Your task to perform on an android device: Open Google Maps and go to "Timeline" Image 0: 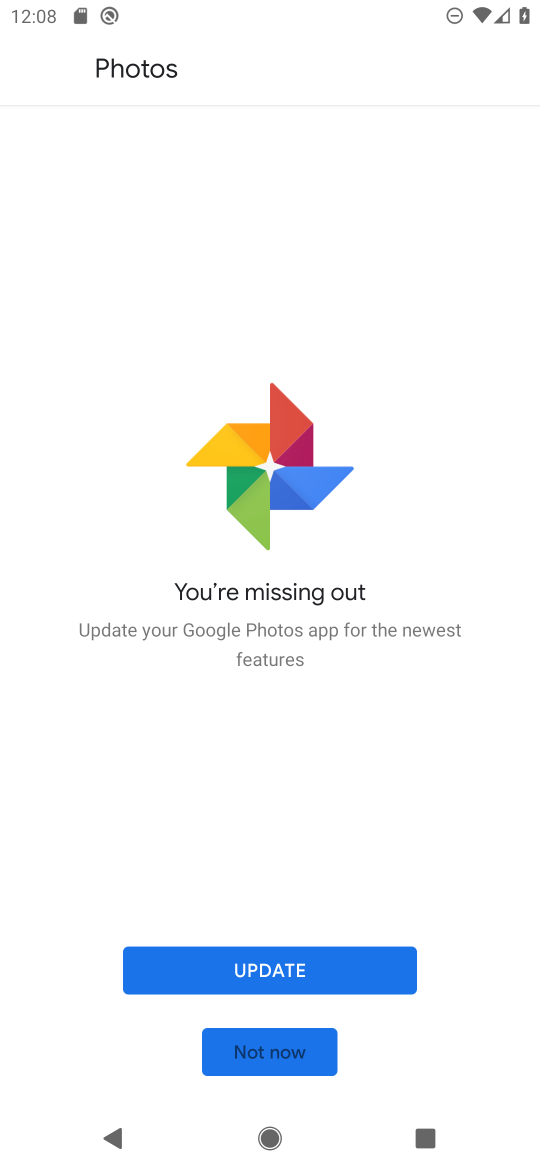
Step 0: press home button
Your task to perform on an android device: Open Google Maps and go to "Timeline" Image 1: 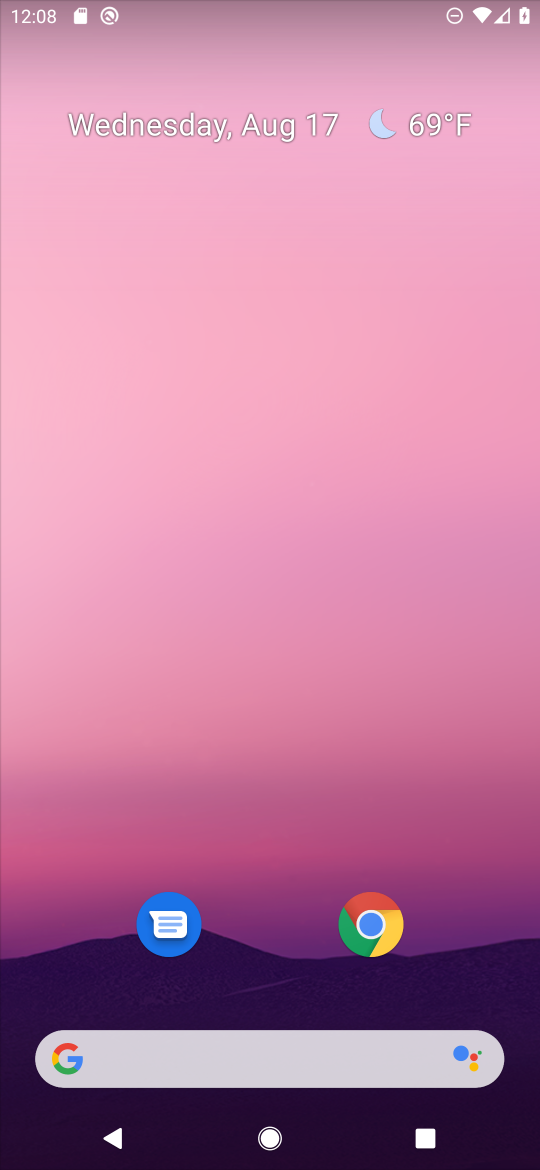
Step 1: drag from (246, 974) to (269, 282)
Your task to perform on an android device: Open Google Maps and go to "Timeline" Image 2: 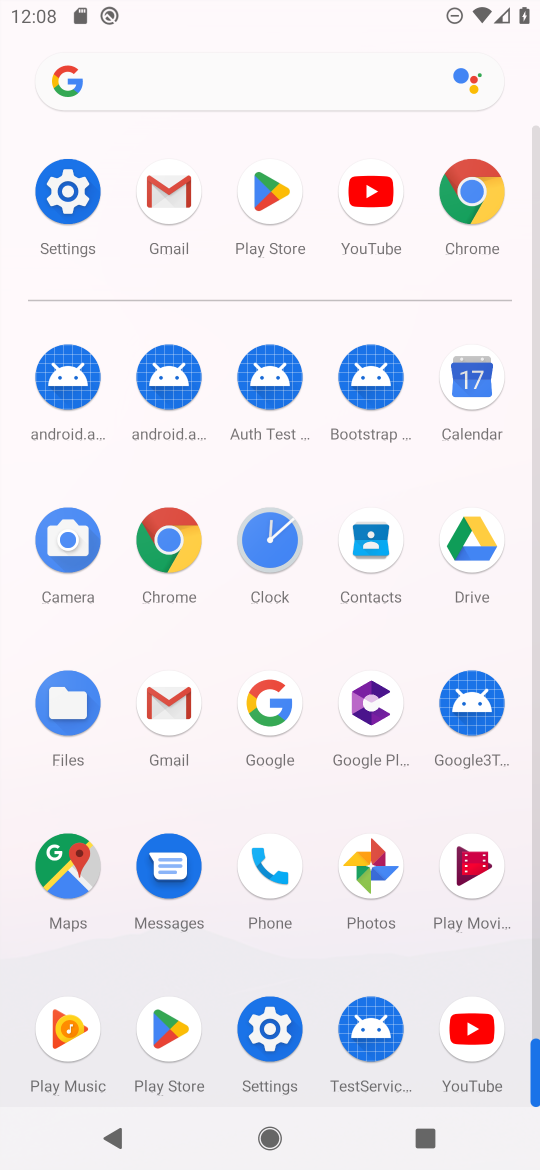
Step 2: click (48, 854)
Your task to perform on an android device: Open Google Maps and go to "Timeline" Image 3: 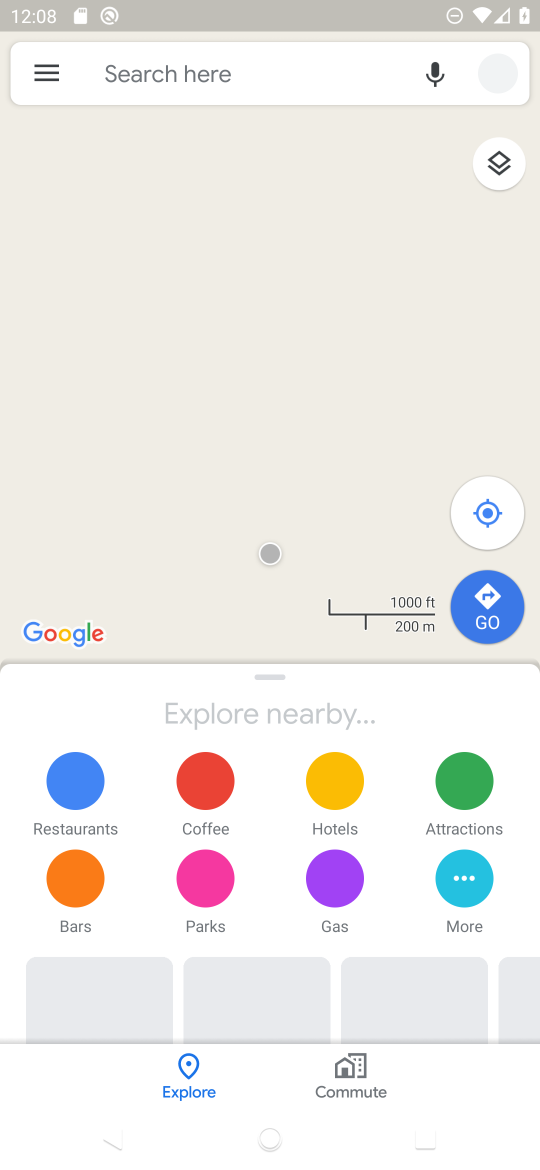
Step 3: click (48, 79)
Your task to perform on an android device: Open Google Maps and go to "Timeline" Image 4: 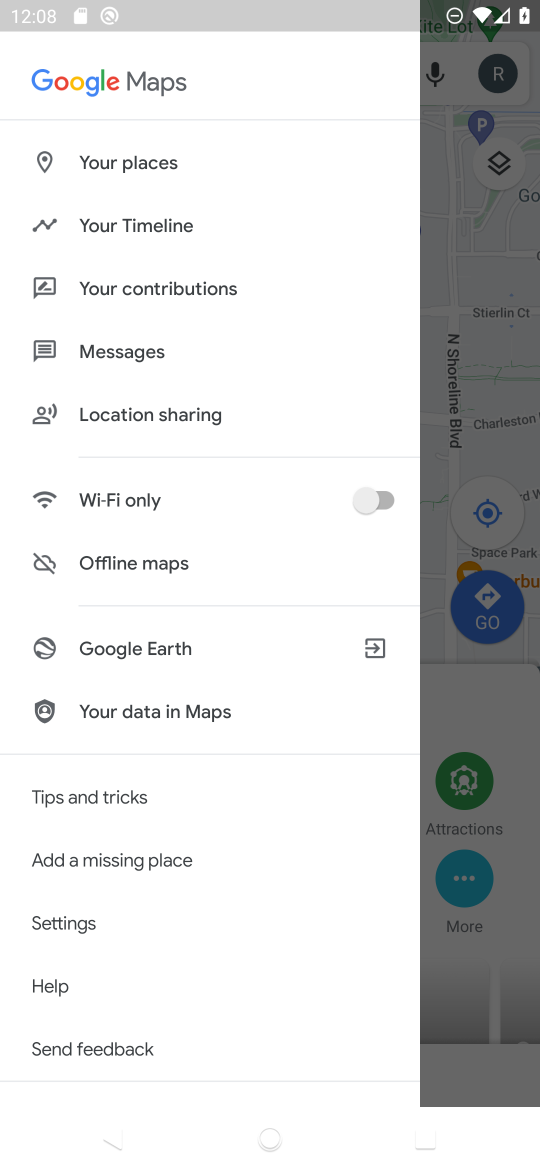
Step 4: click (217, 213)
Your task to perform on an android device: Open Google Maps and go to "Timeline" Image 5: 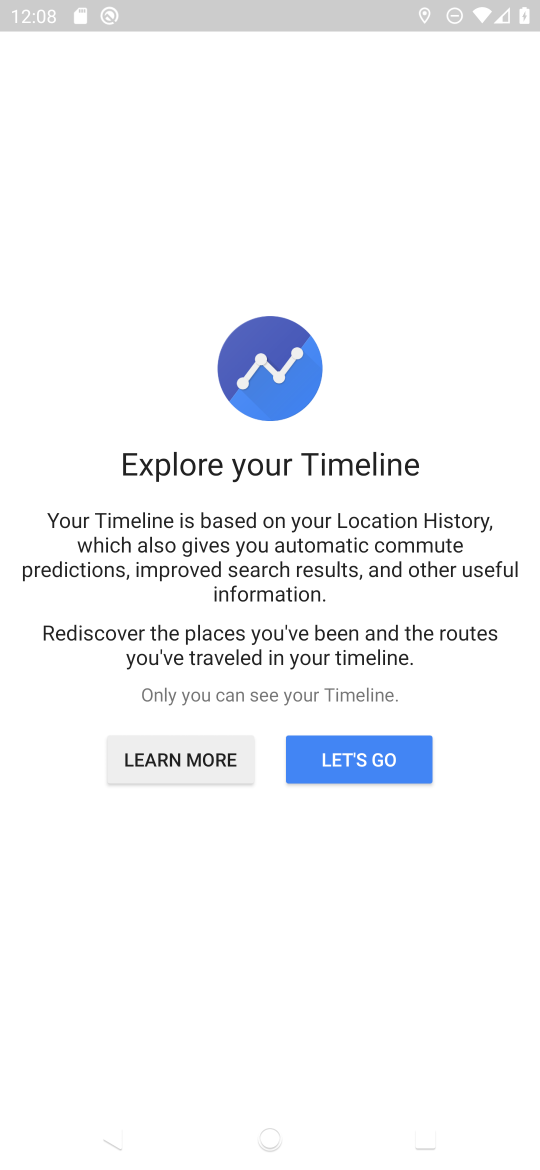
Step 5: click (415, 753)
Your task to perform on an android device: Open Google Maps and go to "Timeline" Image 6: 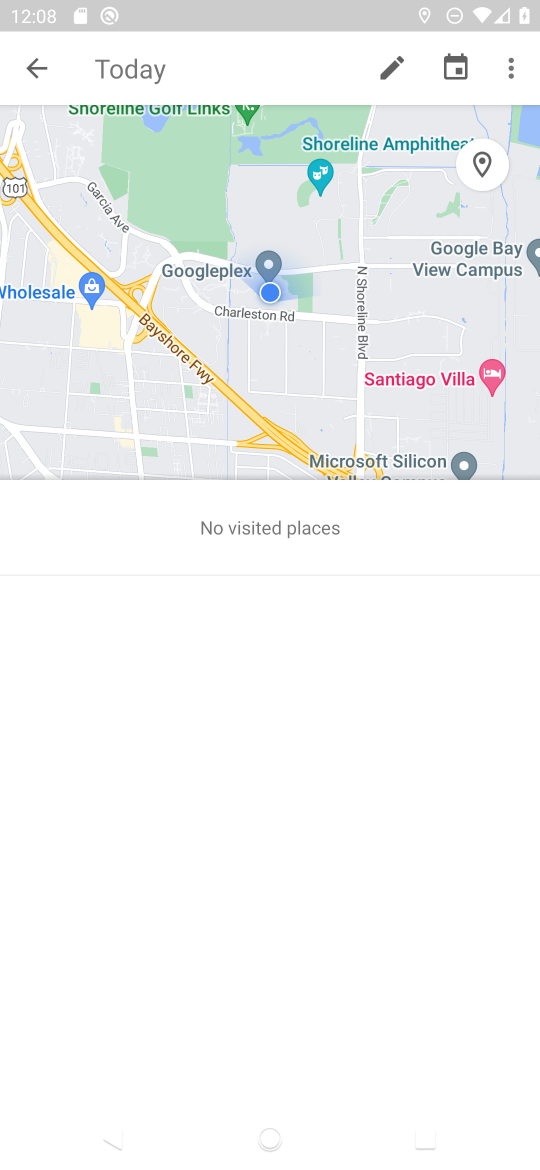
Step 6: task complete